Your task to perform on an android device: star an email in the gmail app Image 0: 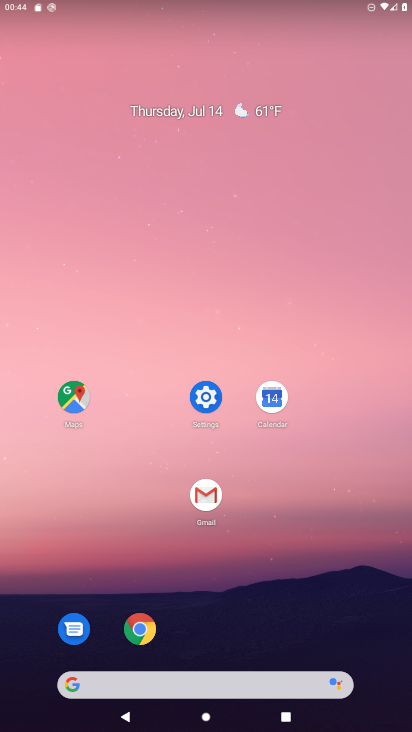
Step 0: click (201, 492)
Your task to perform on an android device: star an email in the gmail app Image 1: 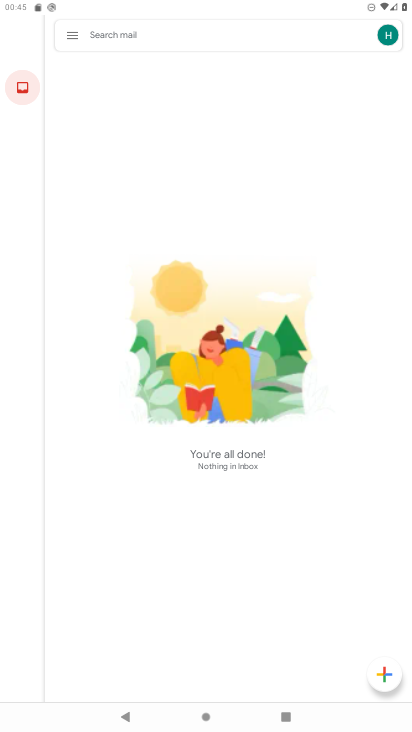
Step 1: task complete